Your task to perform on an android device: toggle notification dots Image 0: 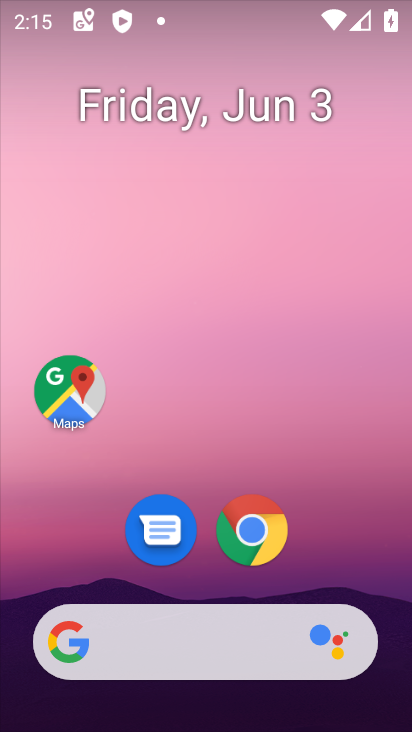
Step 0: drag from (344, 536) to (238, 110)
Your task to perform on an android device: toggle notification dots Image 1: 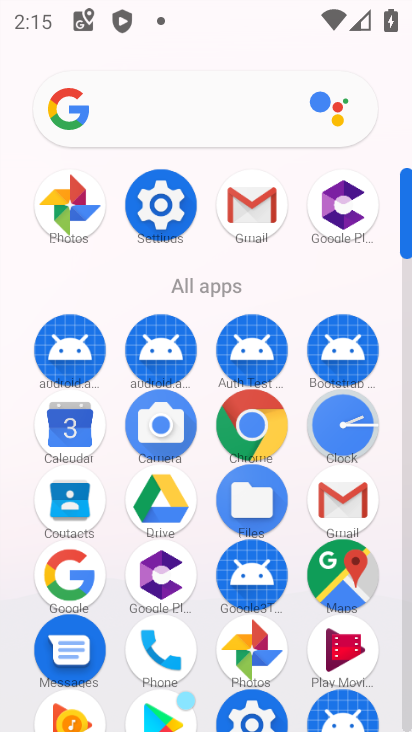
Step 1: click (162, 202)
Your task to perform on an android device: toggle notification dots Image 2: 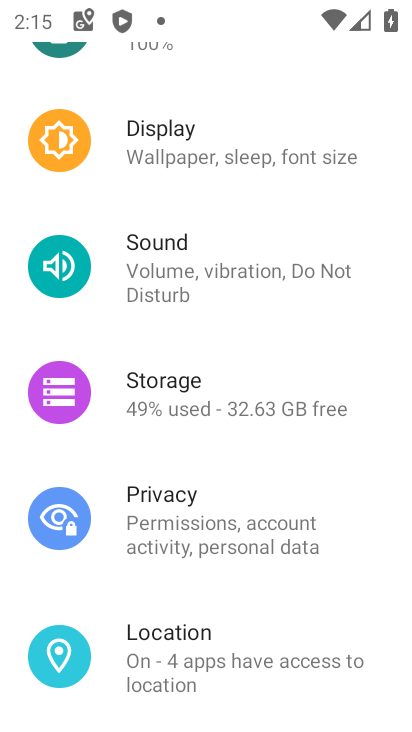
Step 2: drag from (230, 198) to (206, 508)
Your task to perform on an android device: toggle notification dots Image 3: 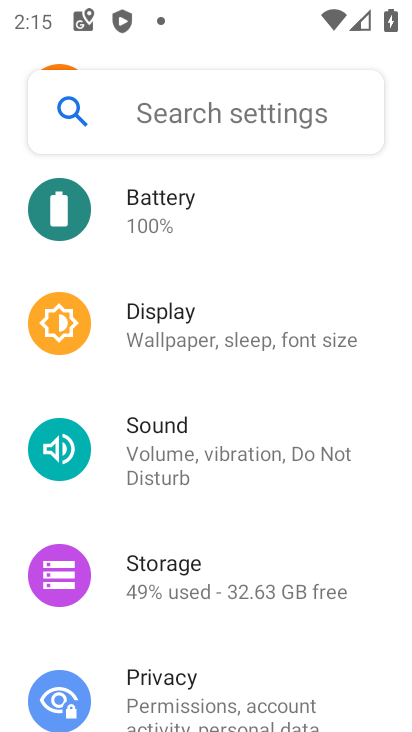
Step 3: drag from (208, 261) to (219, 614)
Your task to perform on an android device: toggle notification dots Image 4: 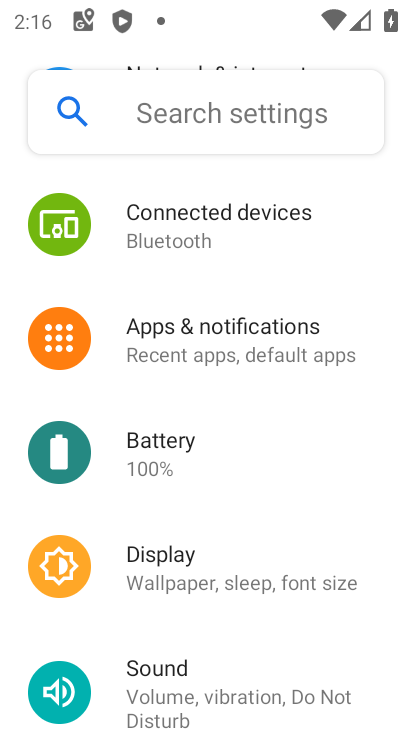
Step 4: click (208, 328)
Your task to perform on an android device: toggle notification dots Image 5: 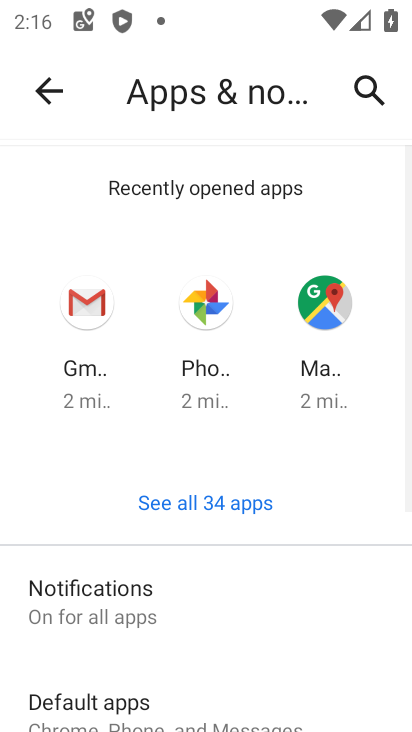
Step 5: drag from (219, 651) to (186, 329)
Your task to perform on an android device: toggle notification dots Image 6: 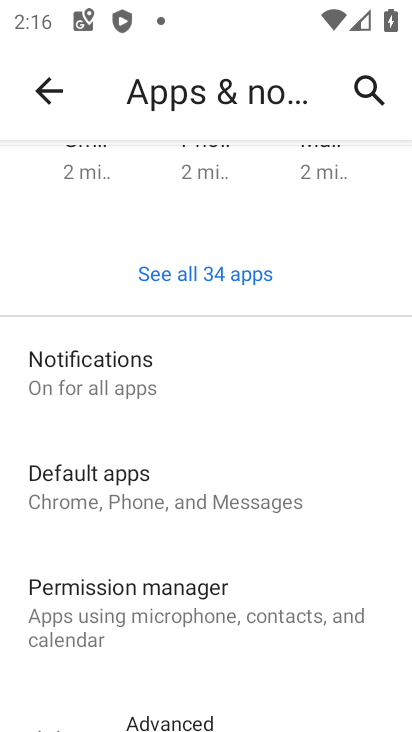
Step 6: click (98, 359)
Your task to perform on an android device: toggle notification dots Image 7: 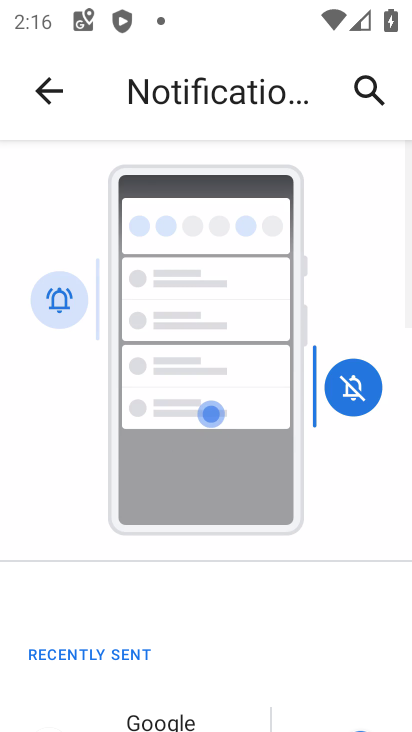
Step 7: drag from (239, 634) to (198, 296)
Your task to perform on an android device: toggle notification dots Image 8: 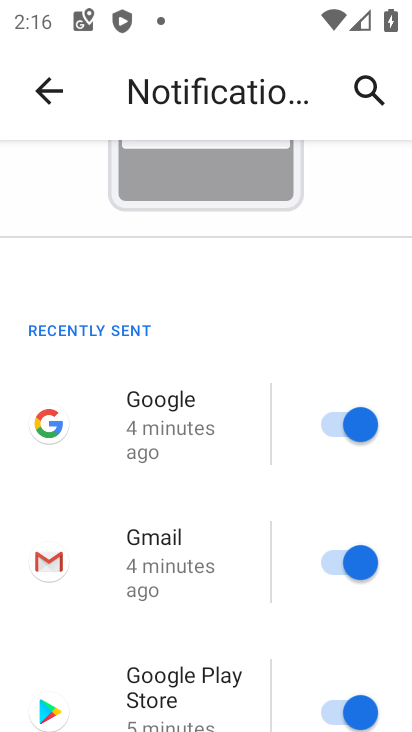
Step 8: drag from (247, 521) to (241, 223)
Your task to perform on an android device: toggle notification dots Image 9: 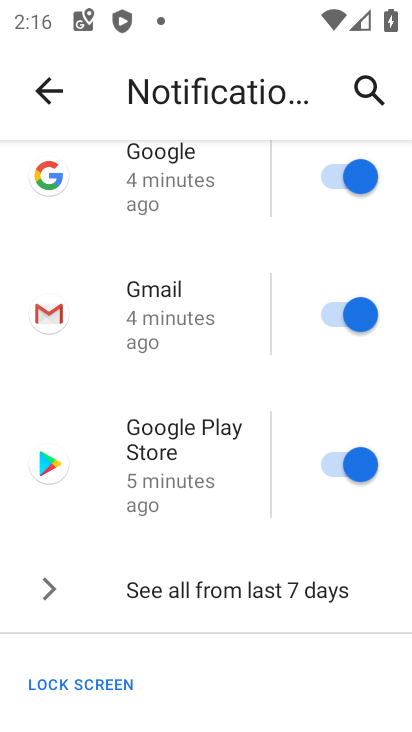
Step 9: drag from (213, 638) to (186, 335)
Your task to perform on an android device: toggle notification dots Image 10: 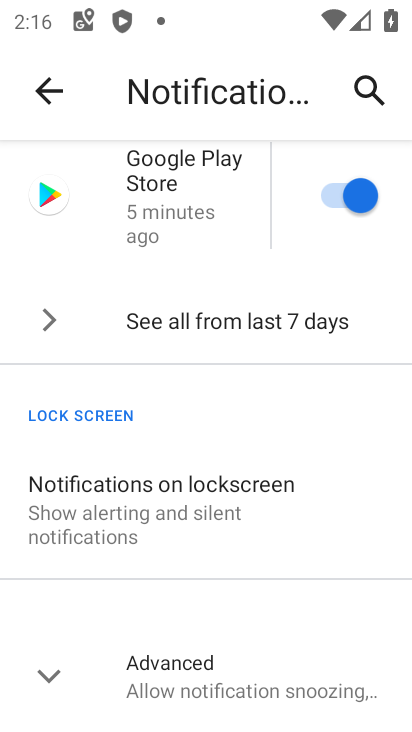
Step 10: drag from (196, 614) to (182, 427)
Your task to perform on an android device: toggle notification dots Image 11: 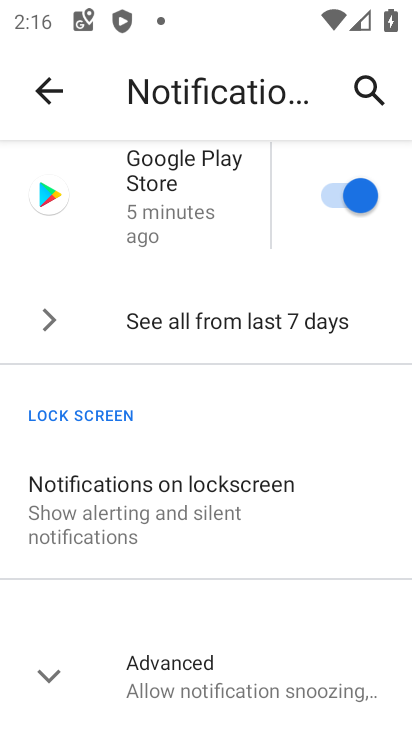
Step 11: click (47, 672)
Your task to perform on an android device: toggle notification dots Image 12: 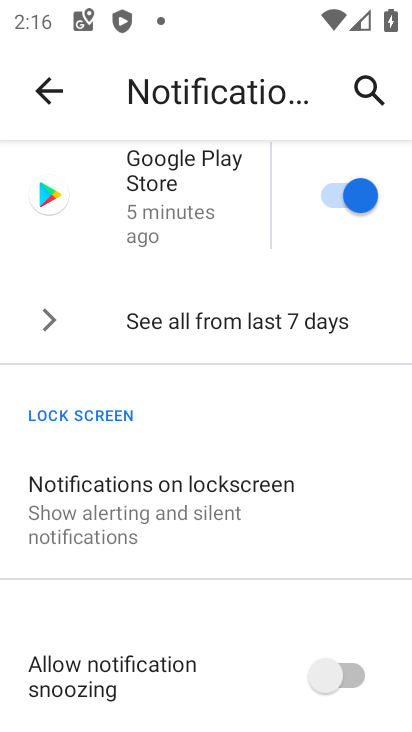
Step 12: drag from (207, 613) to (175, 270)
Your task to perform on an android device: toggle notification dots Image 13: 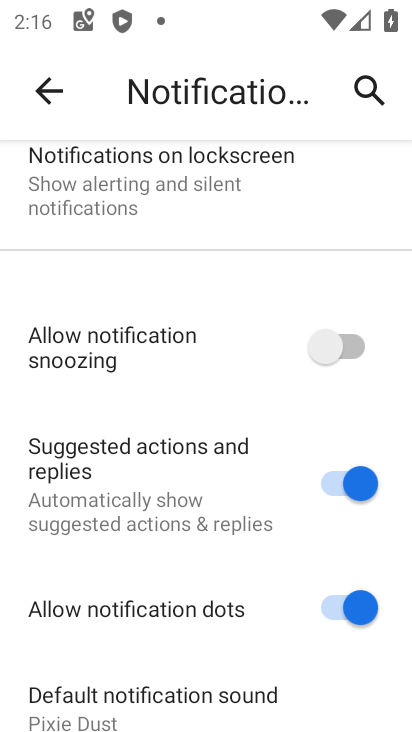
Step 13: click (346, 608)
Your task to perform on an android device: toggle notification dots Image 14: 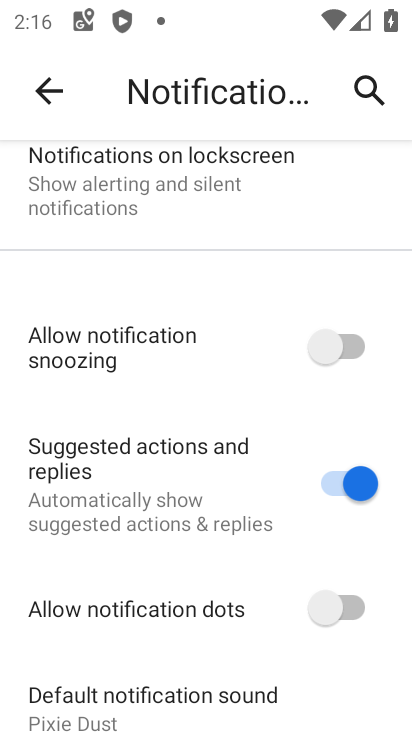
Step 14: task complete